Your task to perform on an android device: Do I have any events tomorrow? Image 0: 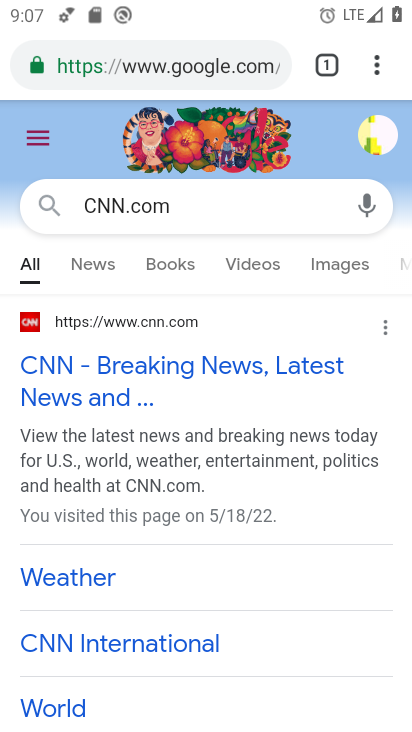
Step 0: press home button
Your task to perform on an android device: Do I have any events tomorrow? Image 1: 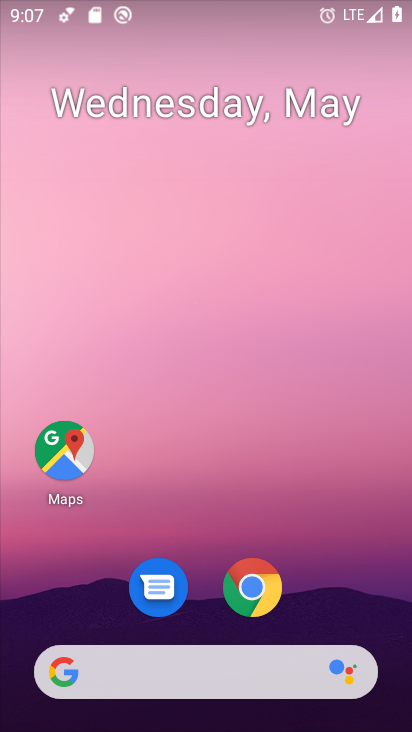
Step 1: drag from (207, 601) to (250, 5)
Your task to perform on an android device: Do I have any events tomorrow? Image 2: 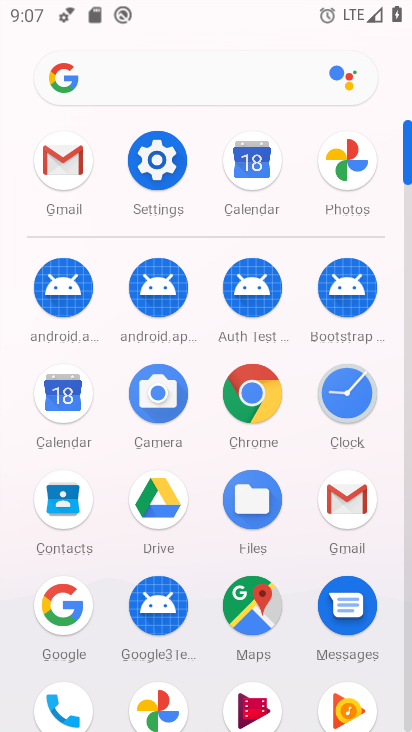
Step 2: click (66, 416)
Your task to perform on an android device: Do I have any events tomorrow? Image 3: 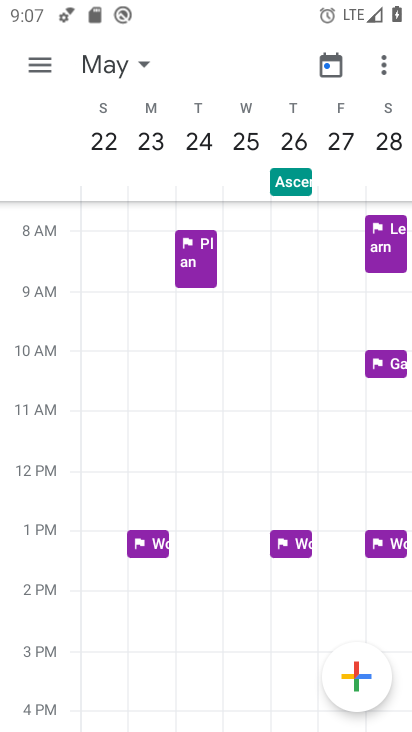
Step 3: click (49, 64)
Your task to perform on an android device: Do I have any events tomorrow? Image 4: 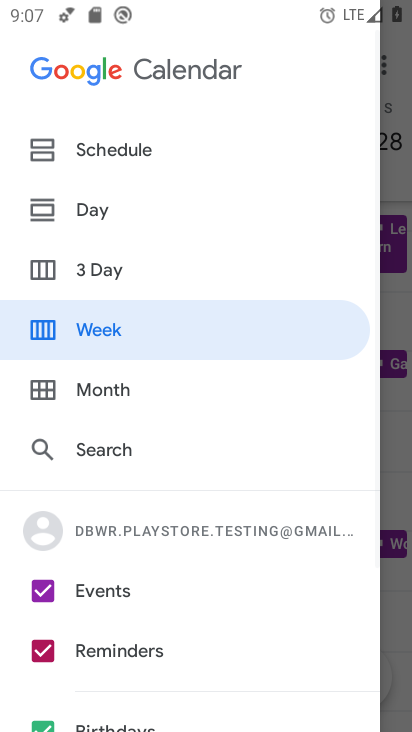
Step 4: drag from (166, 177) to (246, 615)
Your task to perform on an android device: Do I have any events tomorrow? Image 5: 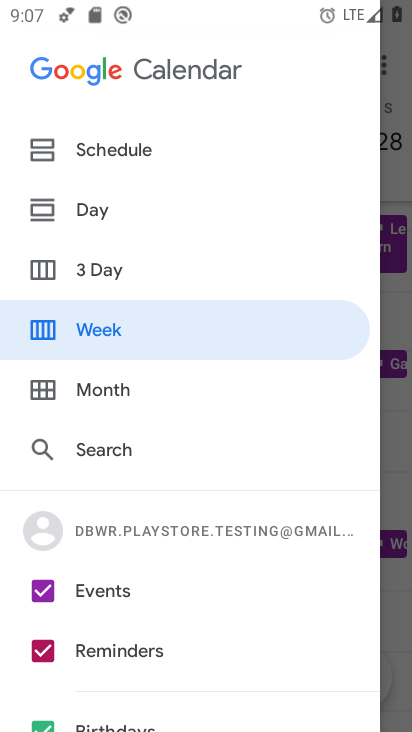
Step 5: click (97, 658)
Your task to perform on an android device: Do I have any events tomorrow? Image 6: 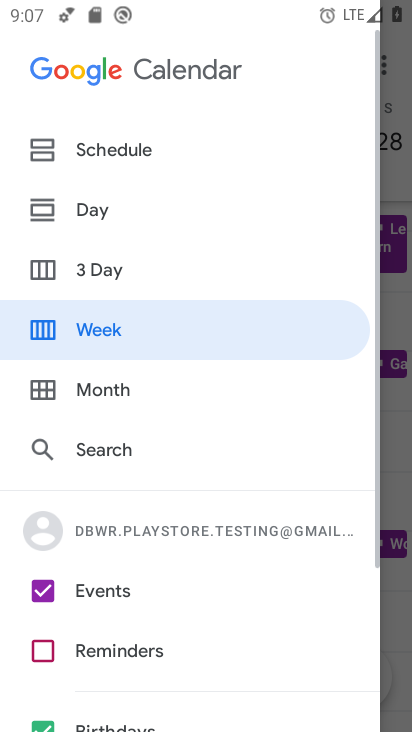
Step 6: drag from (94, 670) to (164, 350)
Your task to perform on an android device: Do I have any events tomorrow? Image 7: 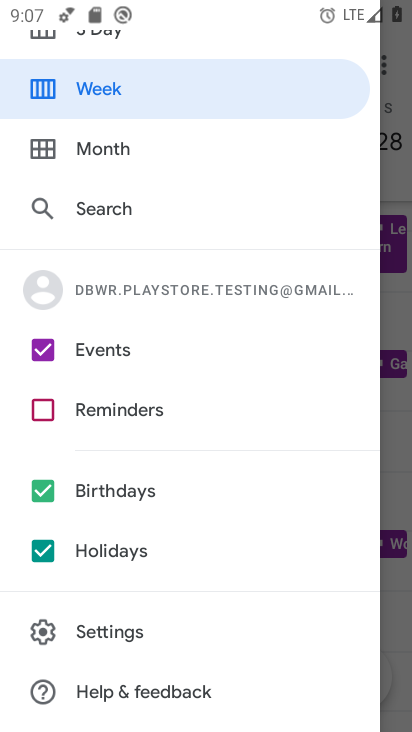
Step 7: click (89, 549)
Your task to perform on an android device: Do I have any events tomorrow? Image 8: 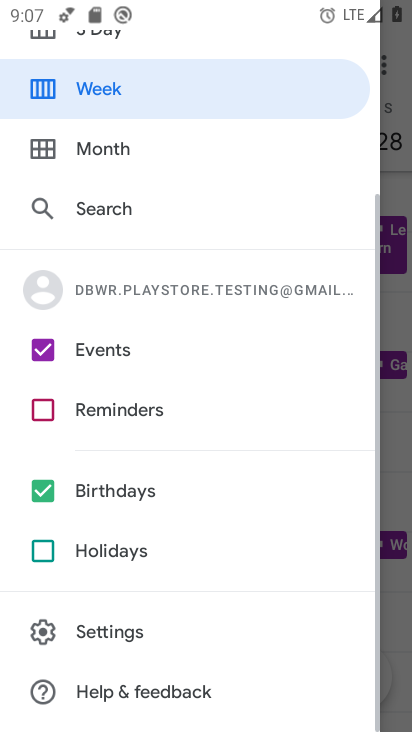
Step 8: click (100, 485)
Your task to perform on an android device: Do I have any events tomorrow? Image 9: 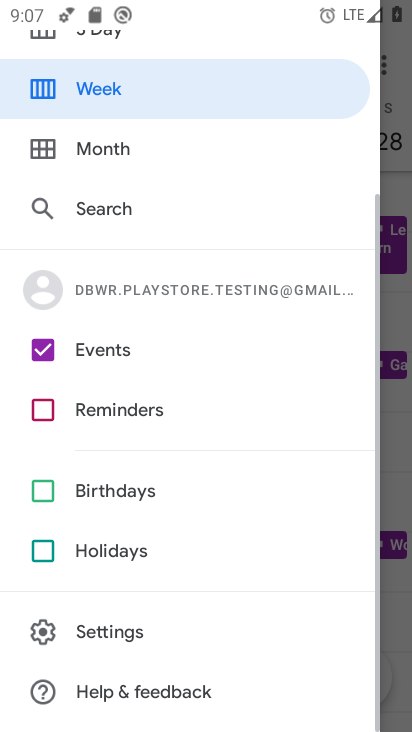
Step 9: drag from (174, 306) to (179, 601)
Your task to perform on an android device: Do I have any events tomorrow? Image 10: 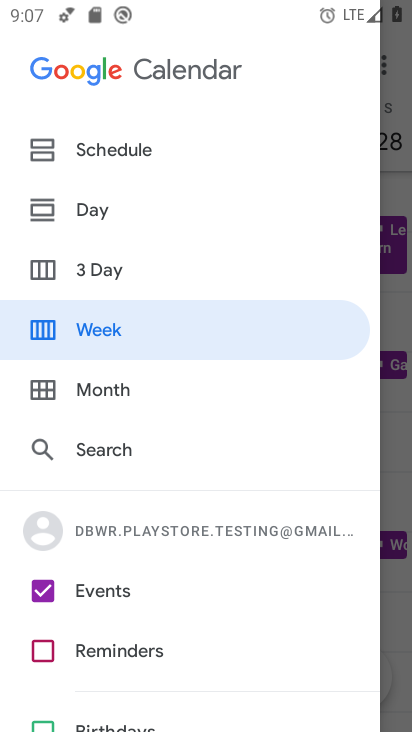
Step 10: click (119, 270)
Your task to perform on an android device: Do I have any events tomorrow? Image 11: 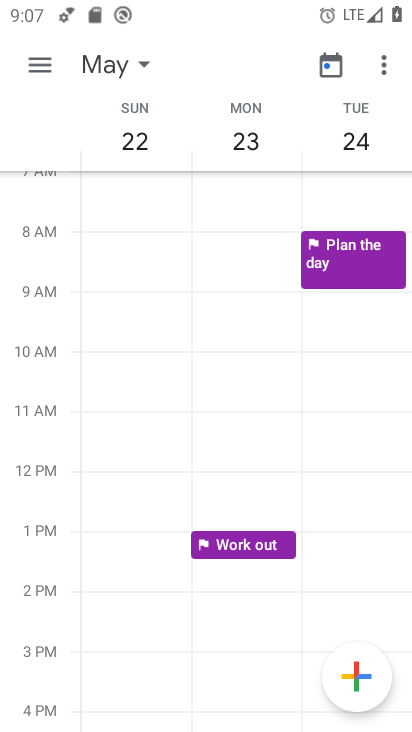
Step 11: task complete